Your task to perform on an android device: Open Chrome and go to settings Image 0: 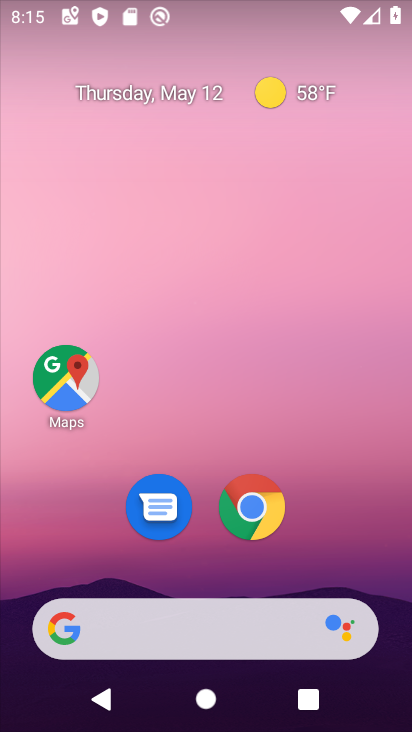
Step 0: click (239, 513)
Your task to perform on an android device: Open Chrome and go to settings Image 1: 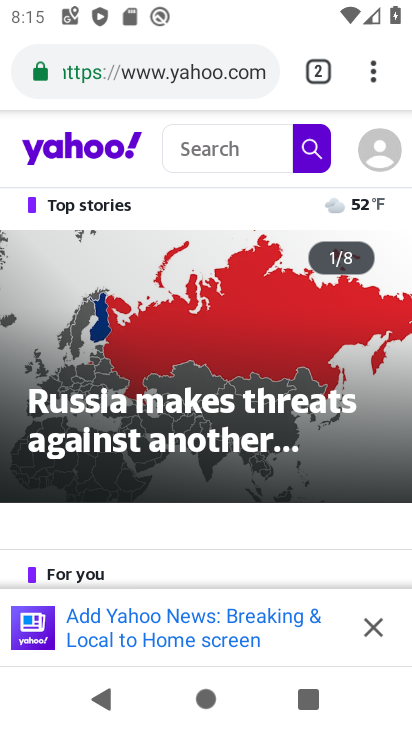
Step 1: task complete